Your task to perform on an android device: change notification settings in the gmail app Image 0: 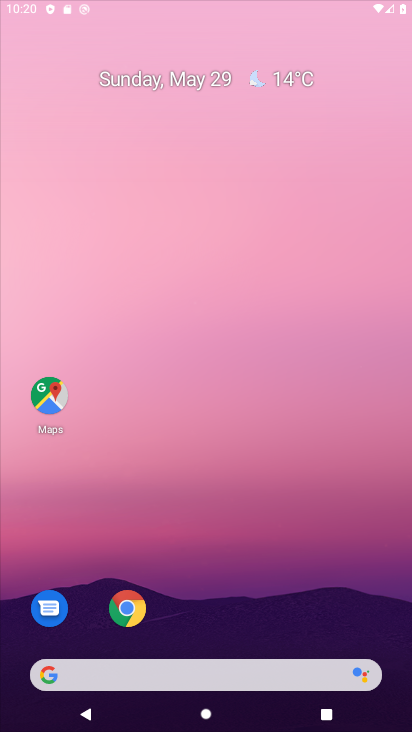
Step 0: click (135, 613)
Your task to perform on an android device: change notification settings in the gmail app Image 1: 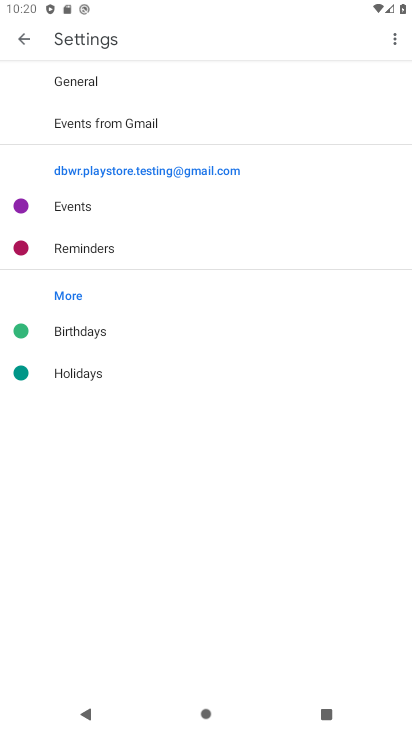
Step 1: press home button
Your task to perform on an android device: change notification settings in the gmail app Image 2: 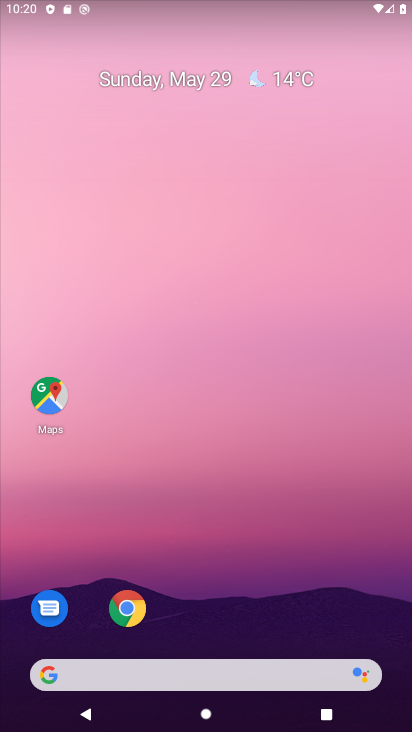
Step 2: drag from (188, 661) to (226, 311)
Your task to perform on an android device: change notification settings in the gmail app Image 3: 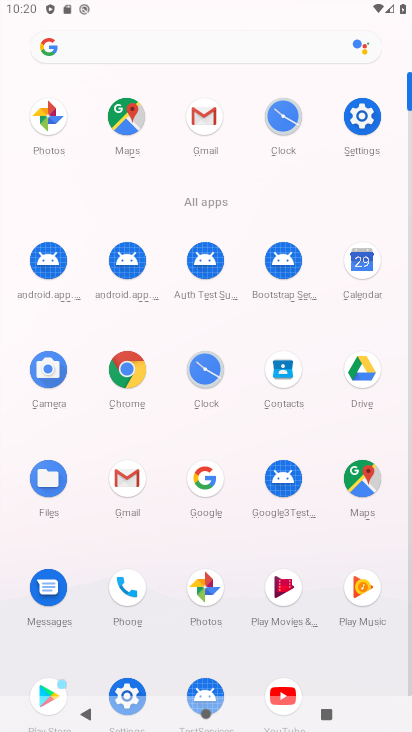
Step 3: click (207, 119)
Your task to perform on an android device: change notification settings in the gmail app Image 4: 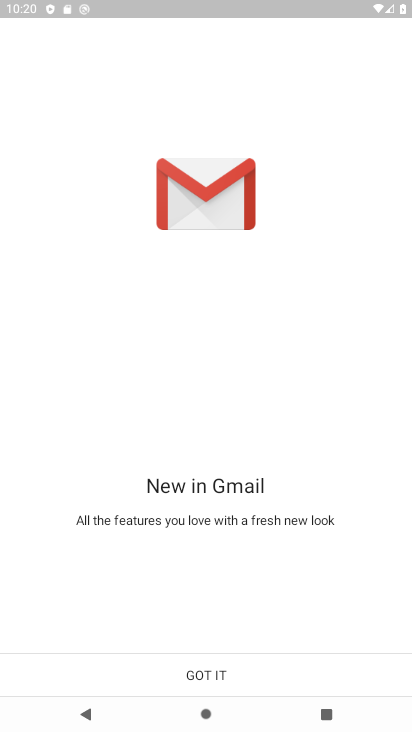
Step 4: click (197, 676)
Your task to perform on an android device: change notification settings in the gmail app Image 5: 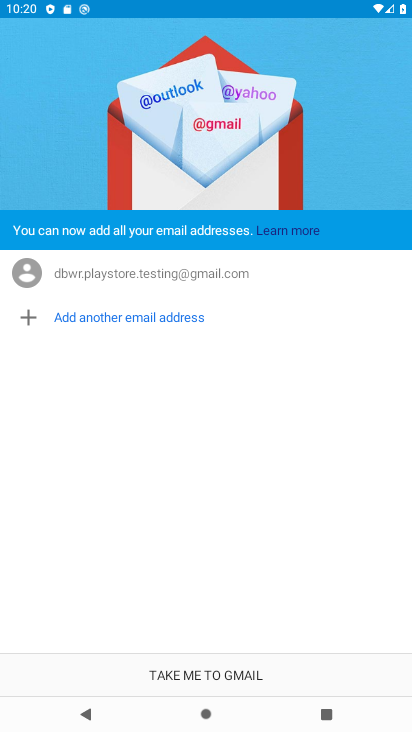
Step 5: click (197, 676)
Your task to perform on an android device: change notification settings in the gmail app Image 6: 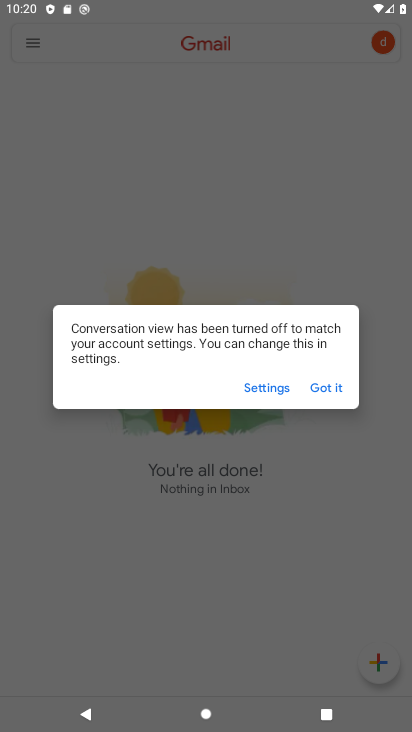
Step 6: click (329, 389)
Your task to perform on an android device: change notification settings in the gmail app Image 7: 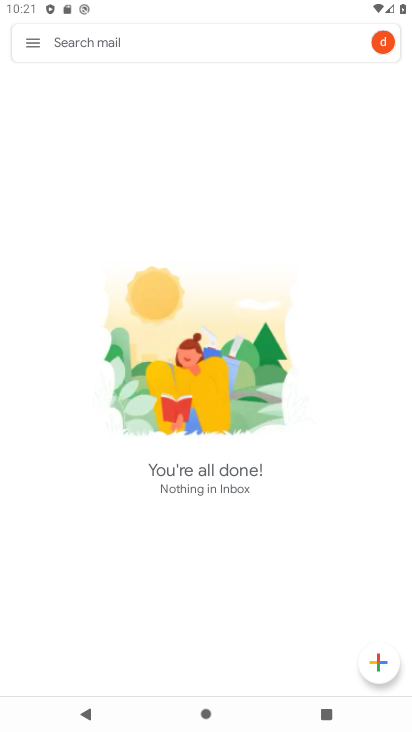
Step 7: click (29, 48)
Your task to perform on an android device: change notification settings in the gmail app Image 8: 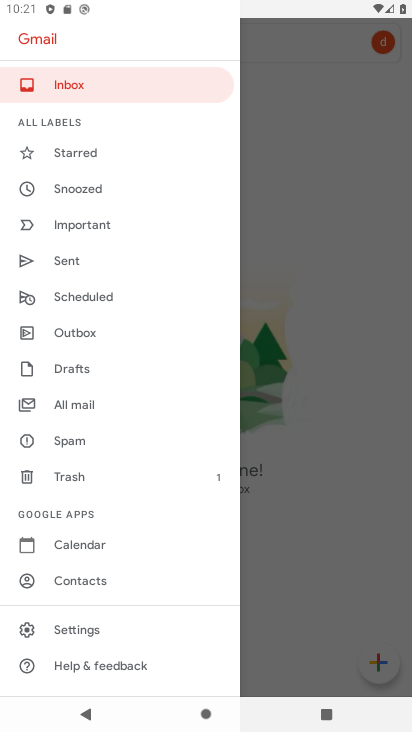
Step 8: click (86, 635)
Your task to perform on an android device: change notification settings in the gmail app Image 9: 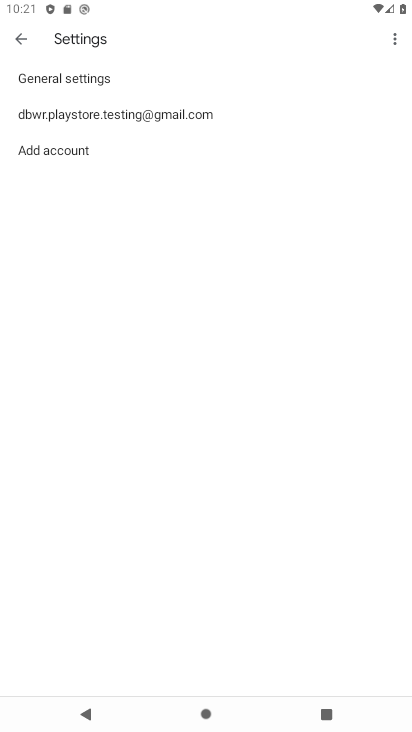
Step 9: click (80, 113)
Your task to perform on an android device: change notification settings in the gmail app Image 10: 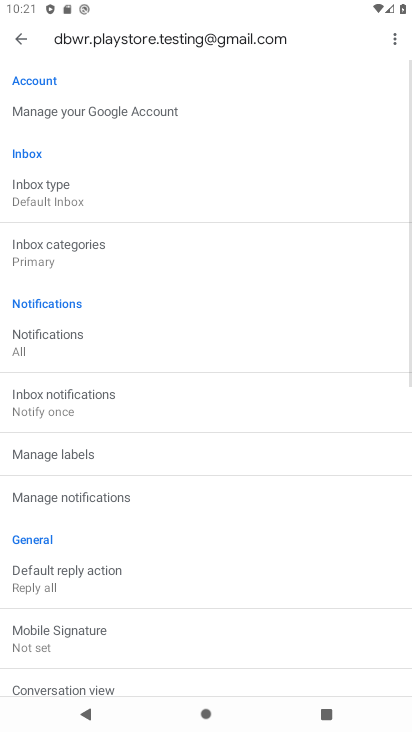
Step 10: click (67, 346)
Your task to perform on an android device: change notification settings in the gmail app Image 11: 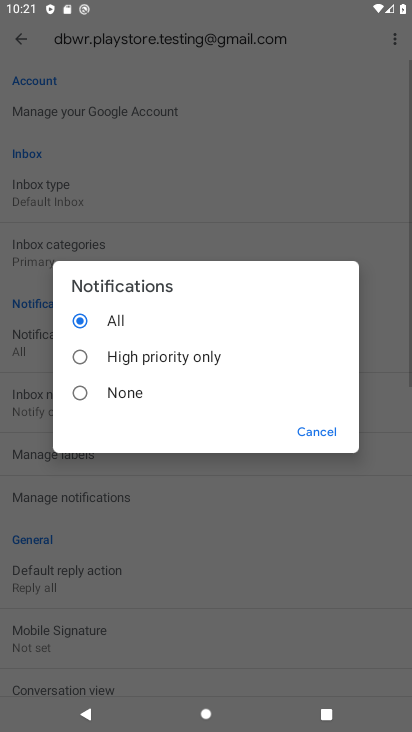
Step 11: click (106, 395)
Your task to perform on an android device: change notification settings in the gmail app Image 12: 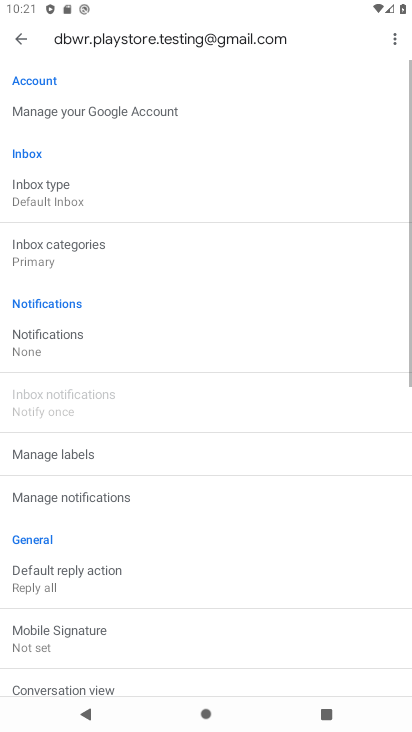
Step 12: task complete